Your task to perform on an android device: open a bookmark in the chrome app Image 0: 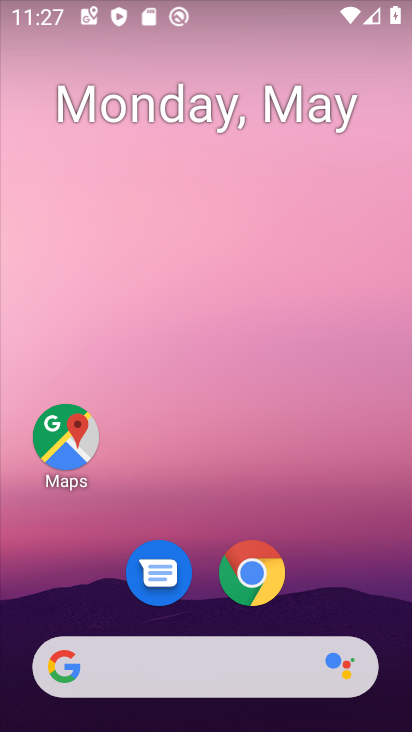
Step 0: drag from (279, 663) to (278, 505)
Your task to perform on an android device: open a bookmark in the chrome app Image 1: 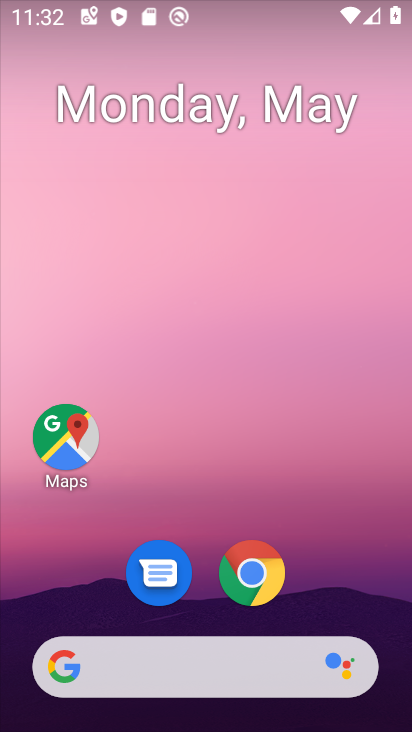
Step 1: drag from (274, 643) to (275, 271)
Your task to perform on an android device: open a bookmark in the chrome app Image 2: 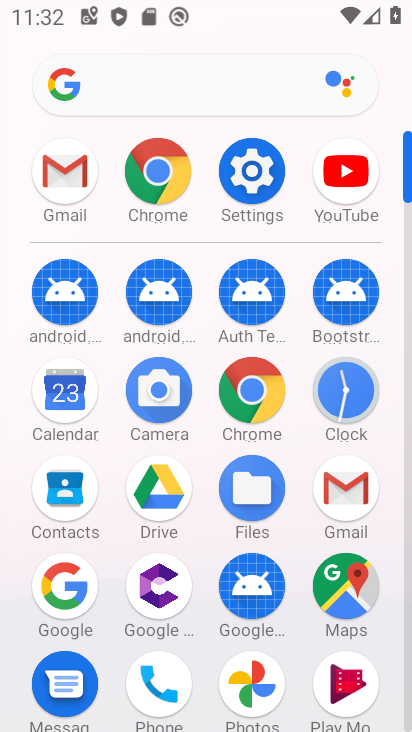
Step 2: click (162, 185)
Your task to perform on an android device: open a bookmark in the chrome app Image 3: 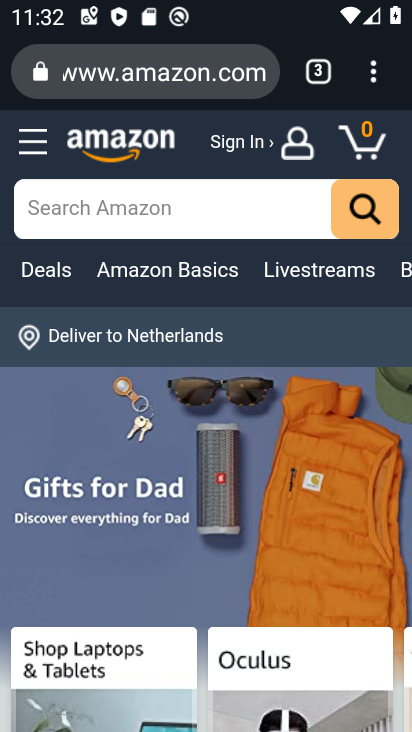
Step 3: click (376, 85)
Your task to perform on an android device: open a bookmark in the chrome app Image 4: 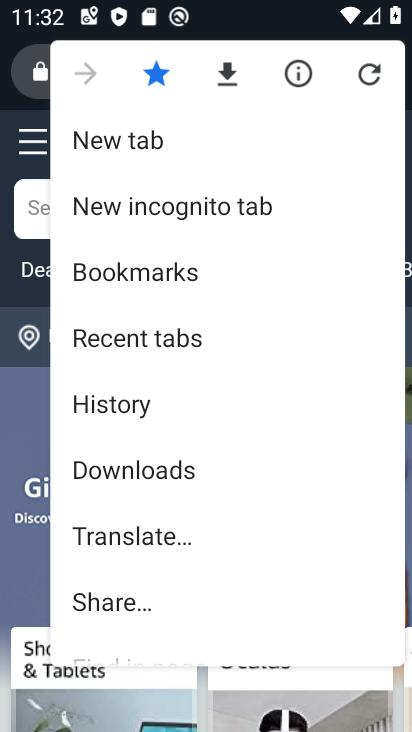
Step 4: click (147, 277)
Your task to perform on an android device: open a bookmark in the chrome app Image 5: 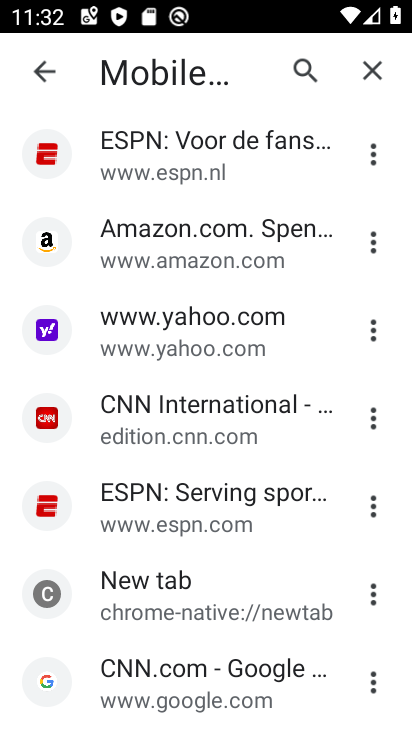
Step 5: click (150, 603)
Your task to perform on an android device: open a bookmark in the chrome app Image 6: 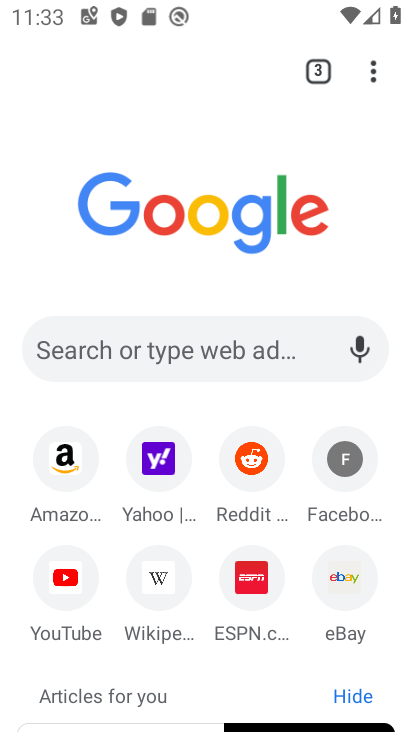
Step 6: task complete